Your task to perform on an android device: change the clock style Image 0: 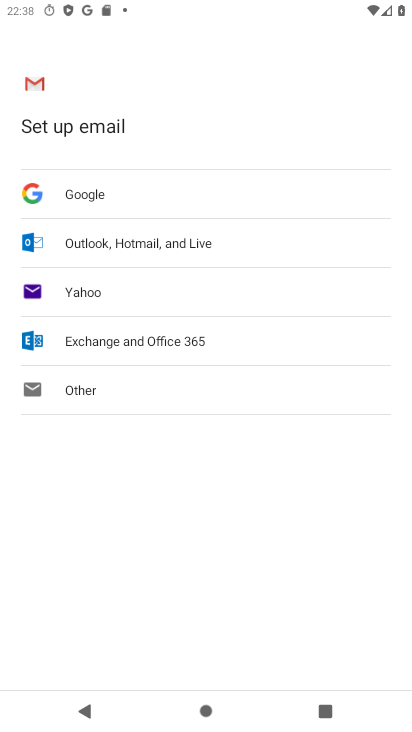
Step 0: press home button
Your task to perform on an android device: change the clock style Image 1: 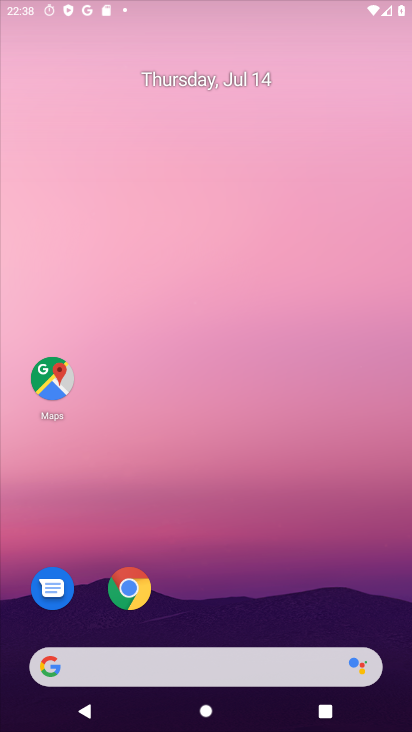
Step 1: drag from (216, 608) to (266, 81)
Your task to perform on an android device: change the clock style Image 2: 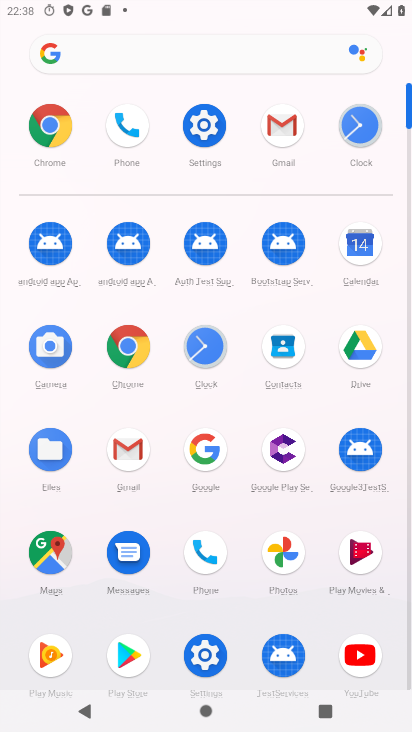
Step 2: click (207, 350)
Your task to perform on an android device: change the clock style Image 3: 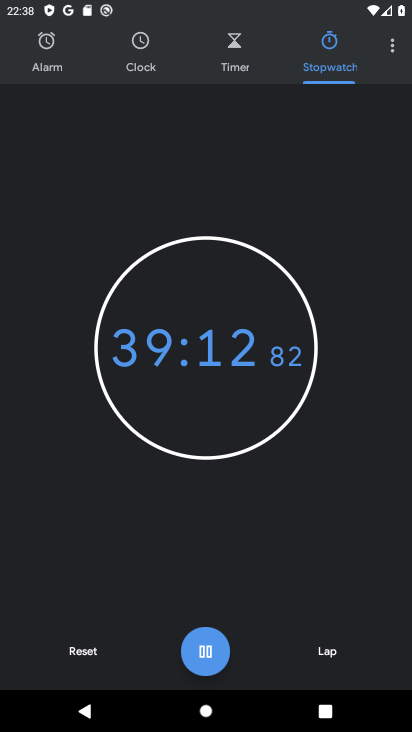
Step 3: click (387, 43)
Your task to perform on an android device: change the clock style Image 4: 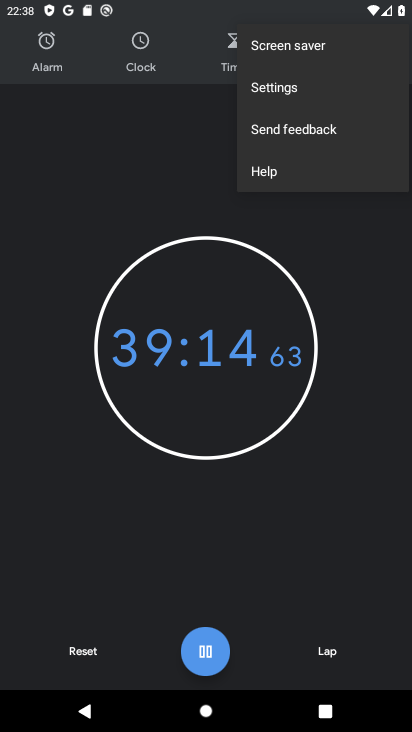
Step 4: click (272, 84)
Your task to perform on an android device: change the clock style Image 5: 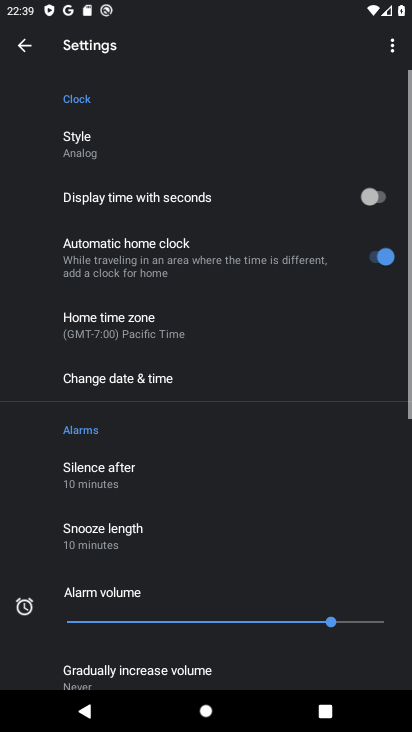
Step 5: click (122, 153)
Your task to perform on an android device: change the clock style Image 6: 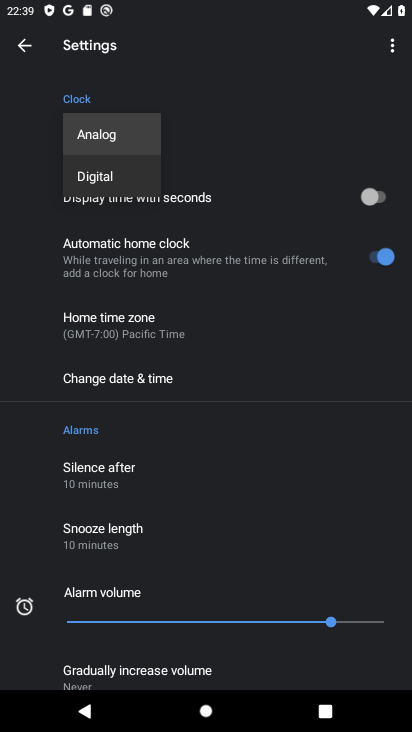
Step 6: click (103, 178)
Your task to perform on an android device: change the clock style Image 7: 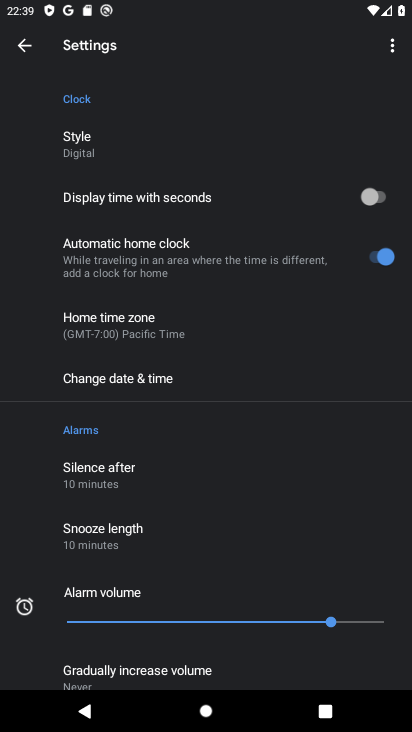
Step 7: task complete